Your task to perform on an android device: Go to Google Image 0: 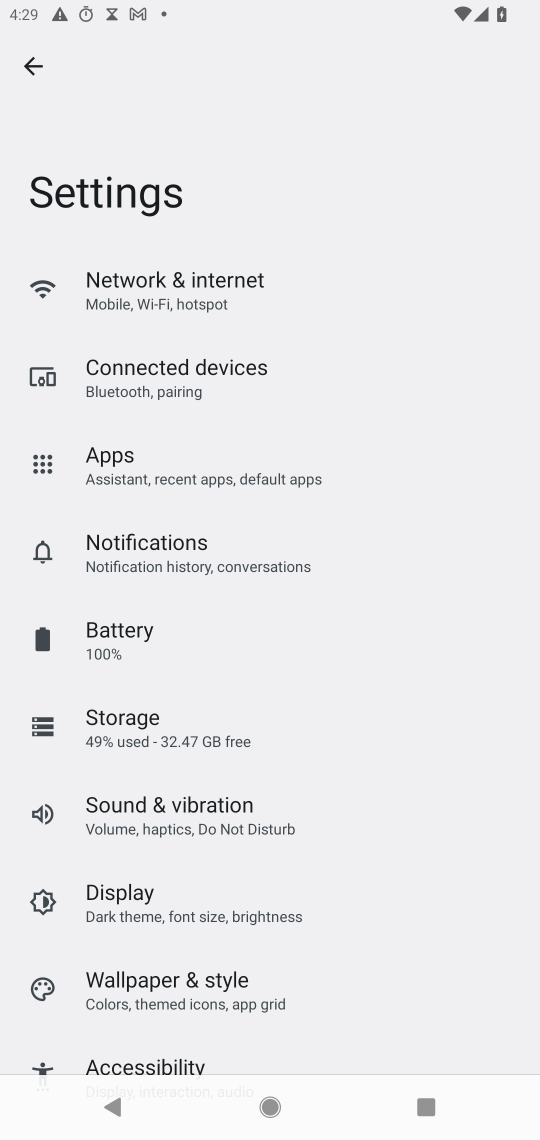
Step 0: press home button
Your task to perform on an android device: Go to Google Image 1: 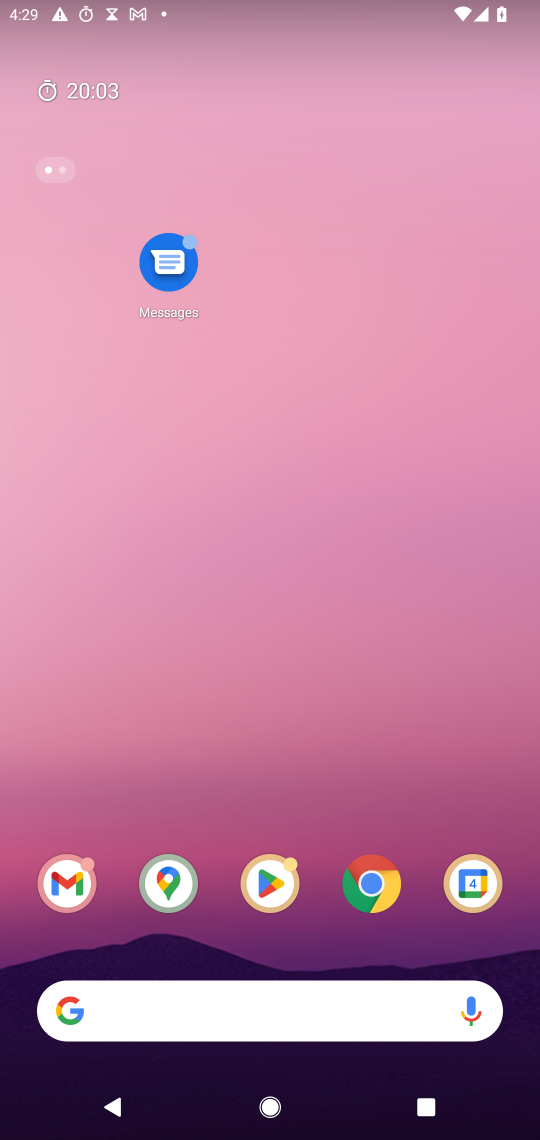
Step 1: drag from (313, 949) to (278, 80)
Your task to perform on an android device: Go to Google Image 2: 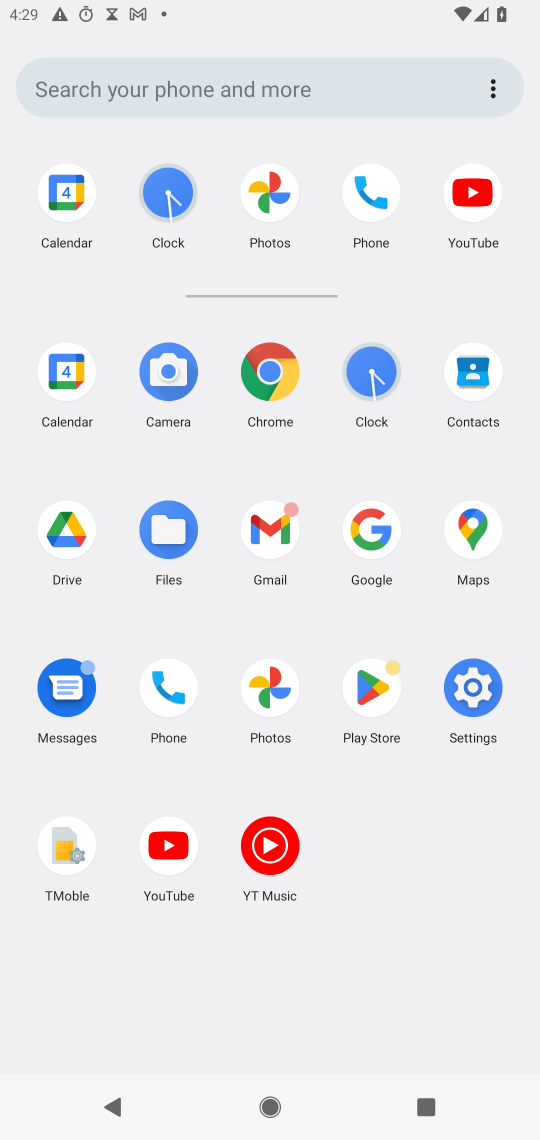
Step 2: click (366, 527)
Your task to perform on an android device: Go to Google Image 3: 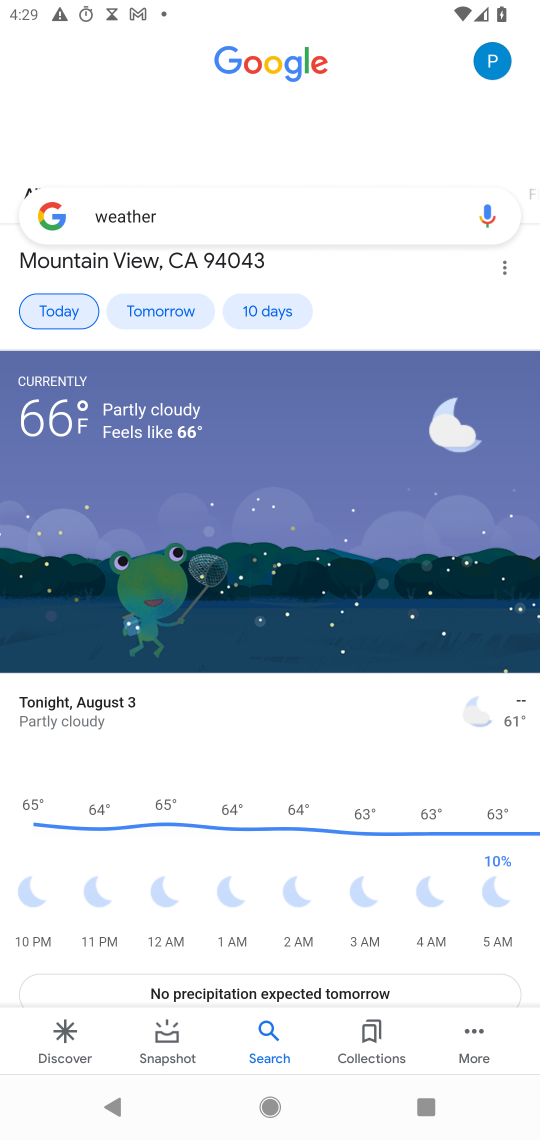
Step 3: task complete